Your task to perform on an android device: open chrome privacy settings Image 0: 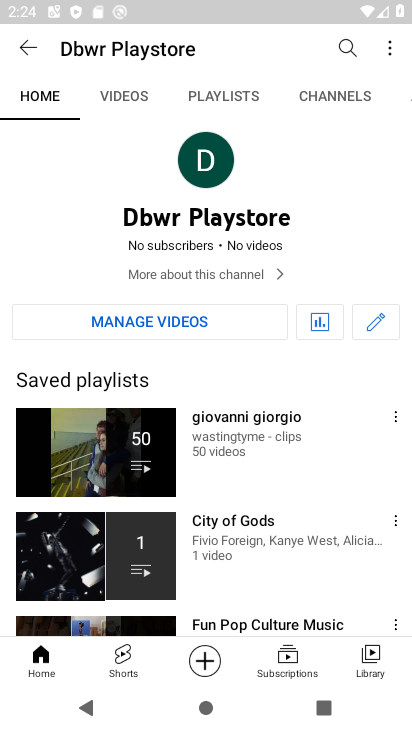
Step 0: press home button
Your task to perform on an android device: open chrome privacy settings Image 1: 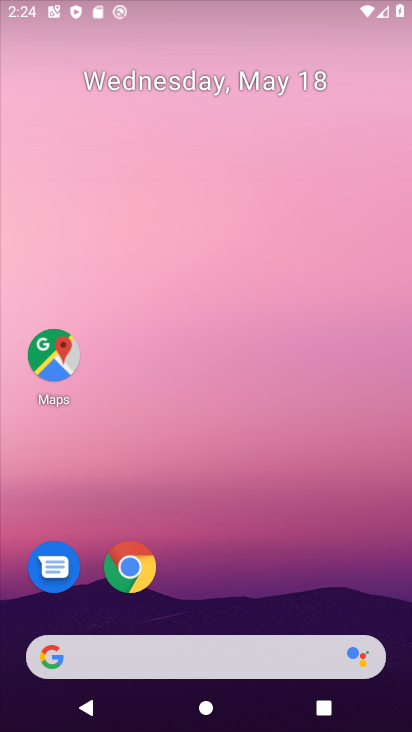
Step 1: drag from (263, 510) to (282, 42)
Your task to perform on an android device: open chrome privacy settings Image 2: 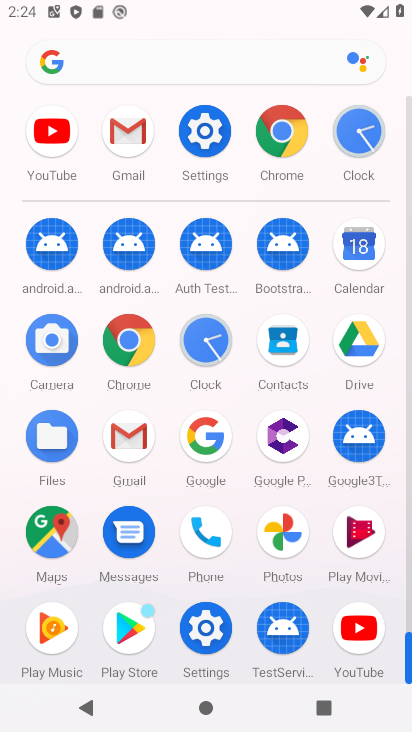
Step 2: click (285, 139)
Your task to perform on an android device: open chrome privacy settings Image 3: 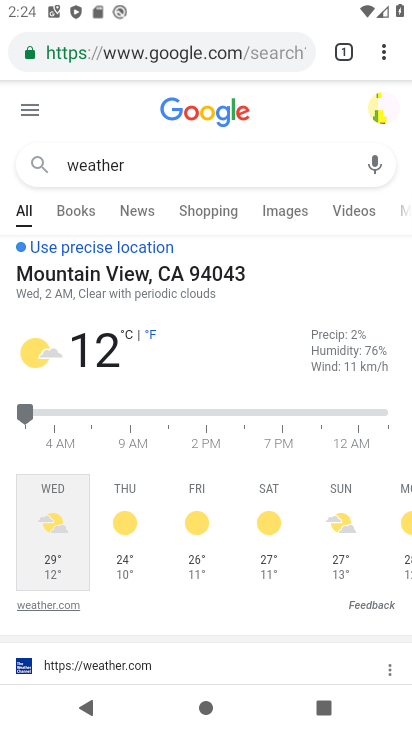
Step 3: drag from (392, 51) to (260, 584)
Your task to perform on an android device: open chrome privacy settings Image 4: 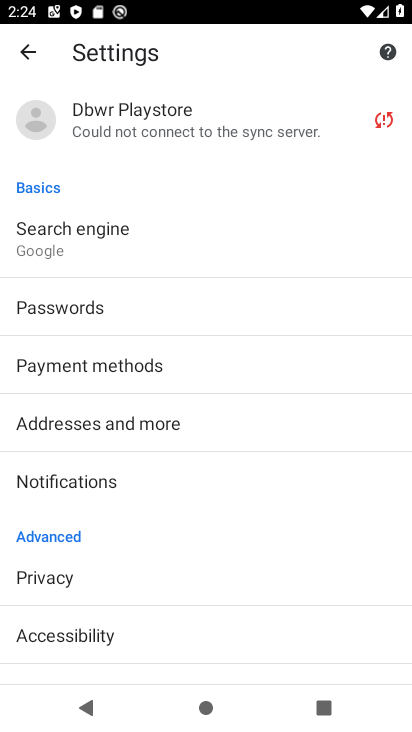
Step 4: click (80, 574)
Your task to perform on an android device: open chrome privacy settings Image 5: 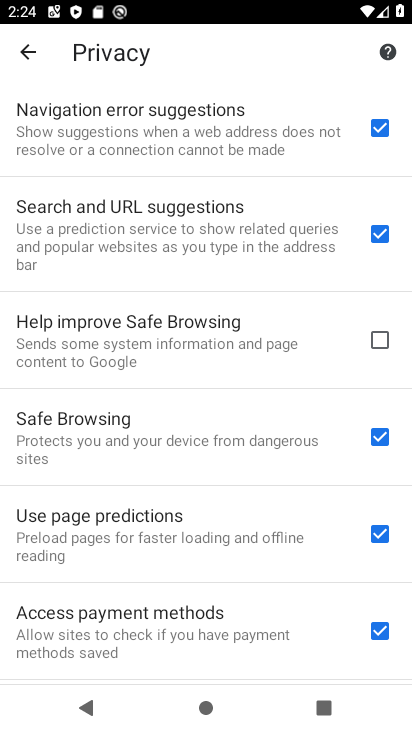
Step 5: task complete